Your task to perform on an android device: Open maps Image 0: 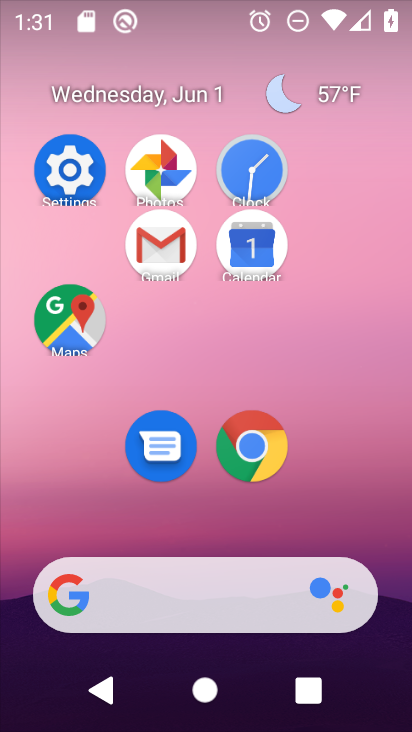
Step 0: click (81, 324)
Your task to perform on an android device: Open maps Image 1: 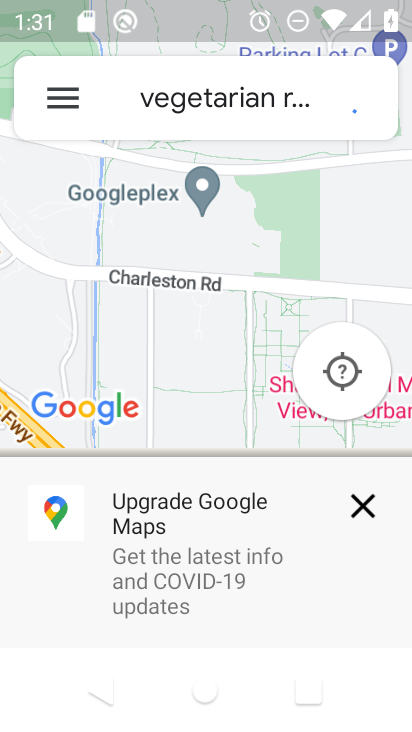
Step 1: task complete